Your task to perform on an android device: Search for seafood restaurants on Google Maps Image 0: 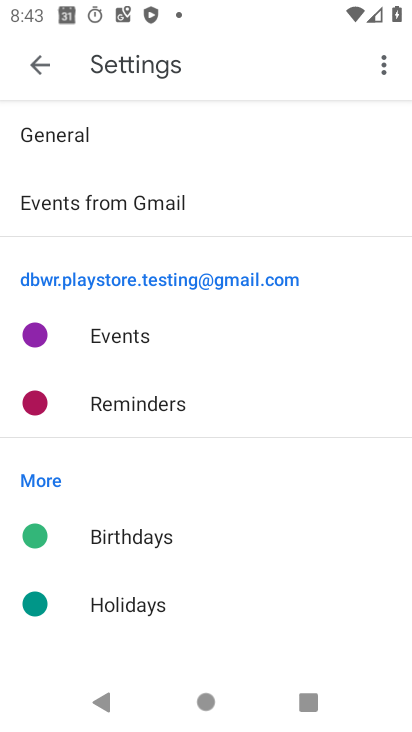
Step 0: press home button
Your task to perform on an android device: Search for seafood restaurants on Google Maps Image 1: 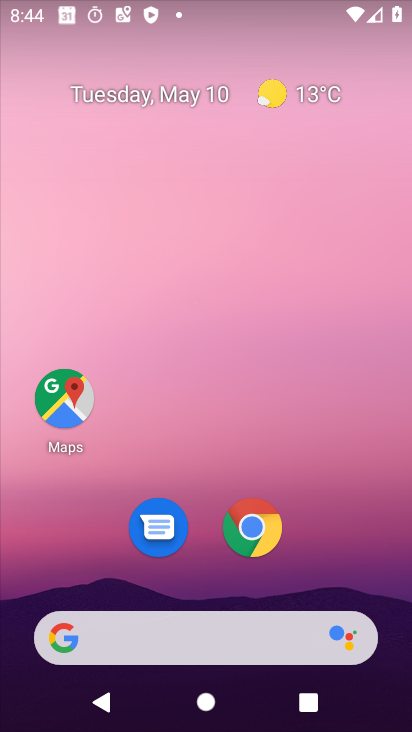
Step 1: click (79, 403)
Your task to perform on an android device: Search for seafood restaurants on Google Maps Image 2: 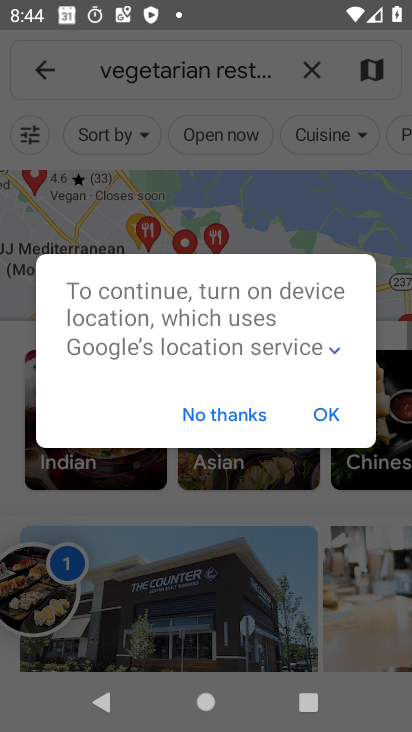
Step 2: click (322, 68)
Your task to perform on an android device: Search for seafood restaurants on Google Maps Image 3: 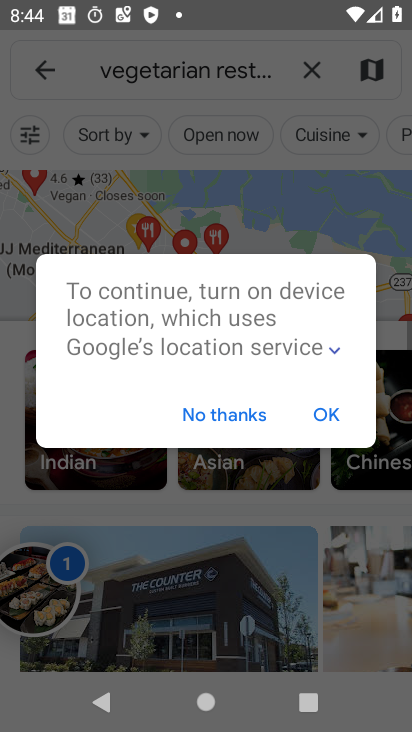
Step 3: click (209, 416)
Your task to perform on an android device: Search for seafood restaurants on Google Maps Image 4: 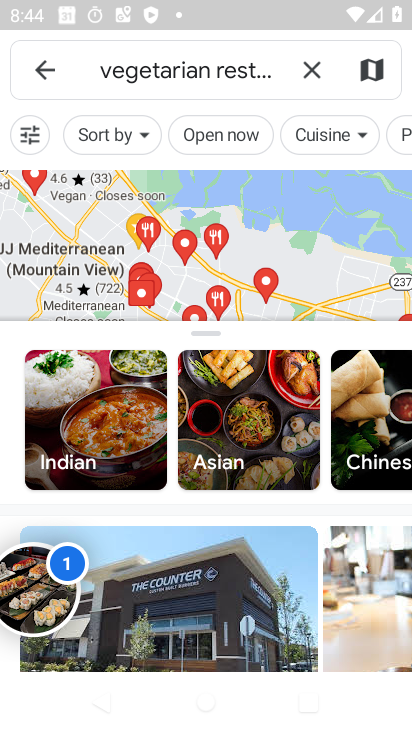
Step 4: click (312, 67)
Your task to perform on an android device: Search for seafood restaurants on Google Maps Image 5: 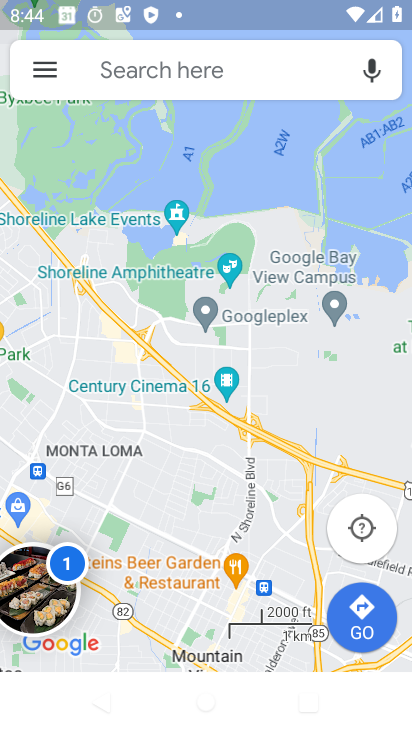
Step 5: click (261, 71)
Your task to perform on an android device: Search for seafood restaurants on Google Maps Image 6: 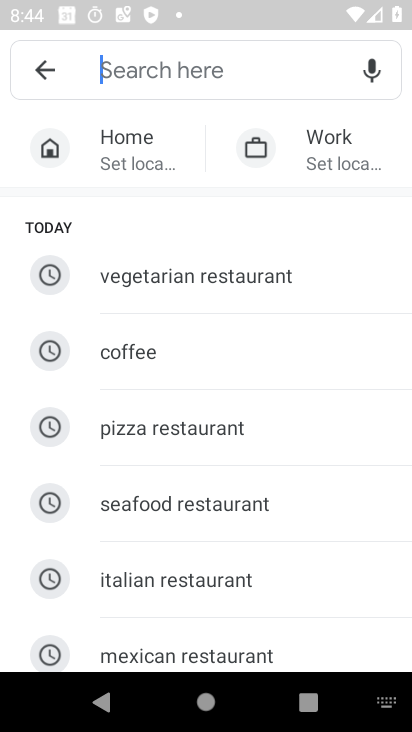
Step 6: click (228, 506)
Your task to perform on an android device: Search for seafood restaurants on Google Maps Image 7: 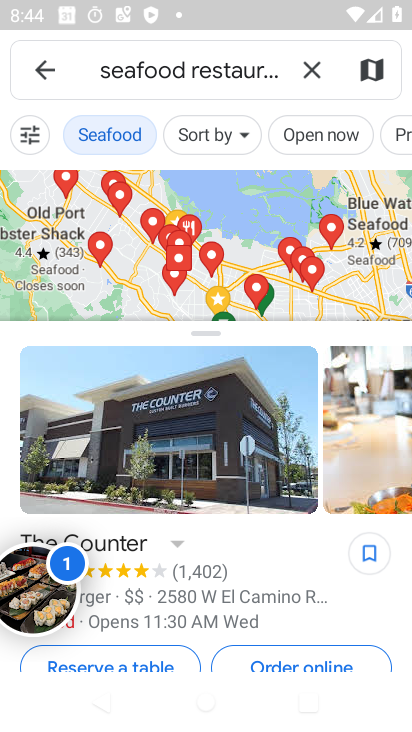
Step 7: task complete